Your task to perform on an android device: Go to notification settings Image 0: 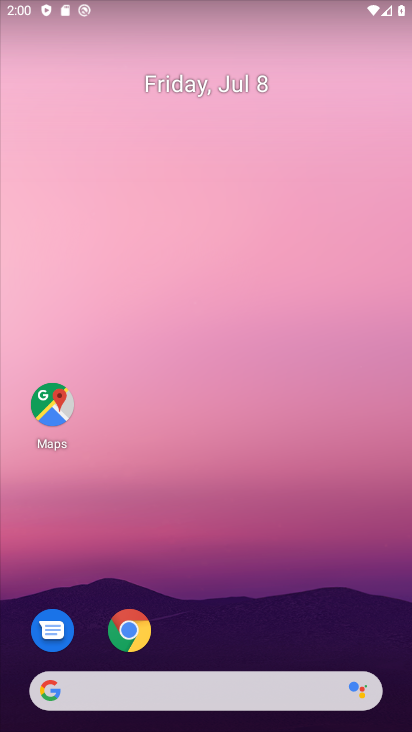
Step 0: drag from (260, 594) to (363, 121)
Your task to perform on an android device: Go to notification settings Image 1: 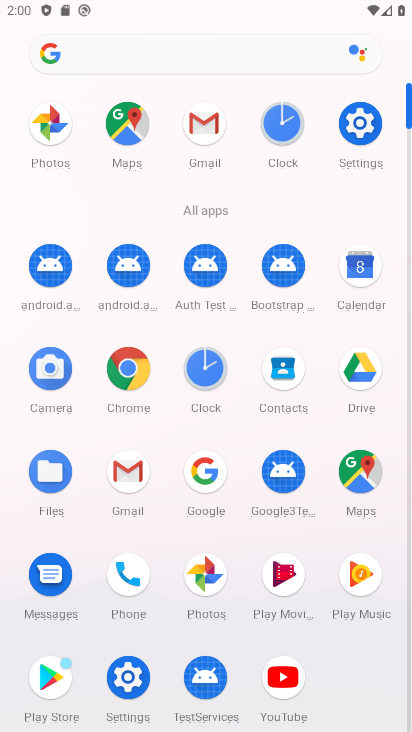
Step 1: click (135, 675)
Your task to perform on an android device: Go to notification settings Image 2: 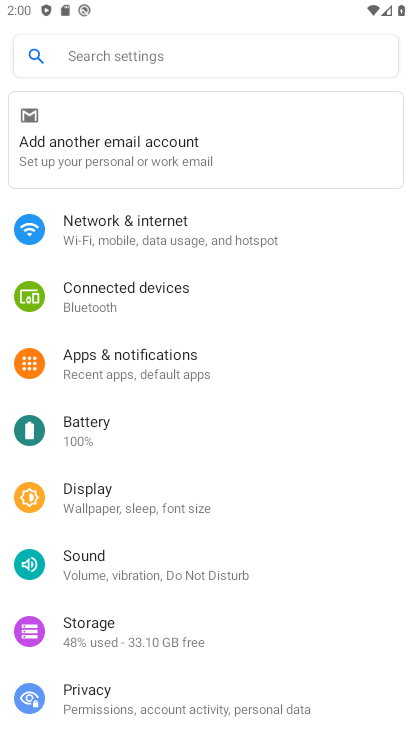
Step 2: click (142, 361)
Your task to perform on an android device: Go to notification settings Image 3: 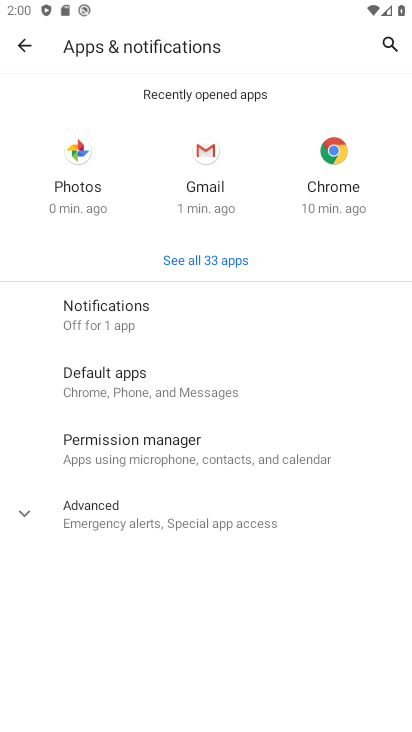
Step 3: click (139, 321)
Your task to perform on an android device: Go to notification settings Image 4: 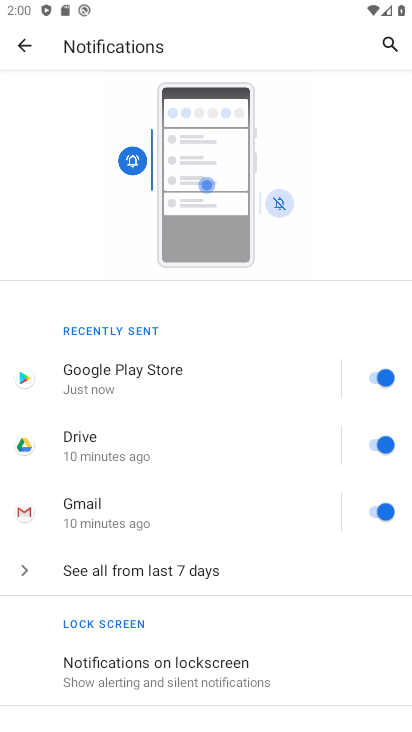
Step 4: task complete